Your task to perform on an android device: all mails in gmail Image 0: 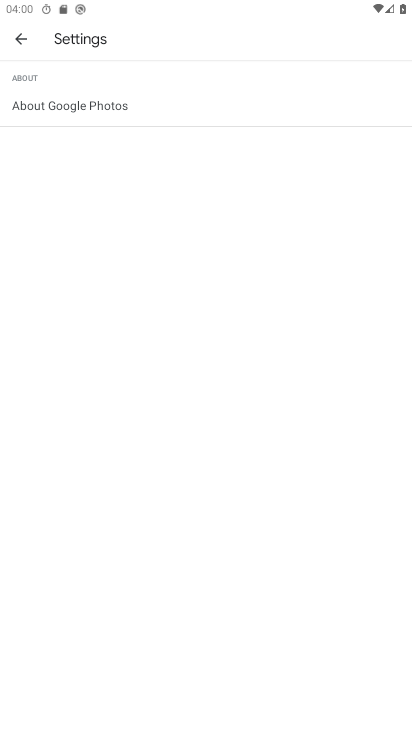
Step 0: press home button
Your task to perform on an android device: all mails in gmail Image 1: 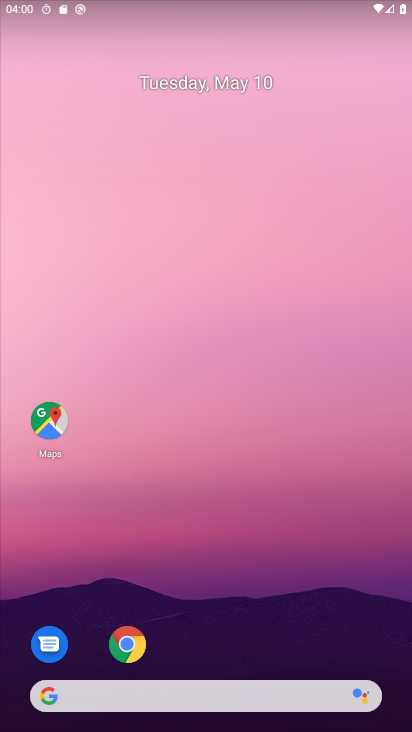
Step 1: drag from (193, 647) to (259, 47)
Your task to perform on an android device: all mails in gmail Image 2: 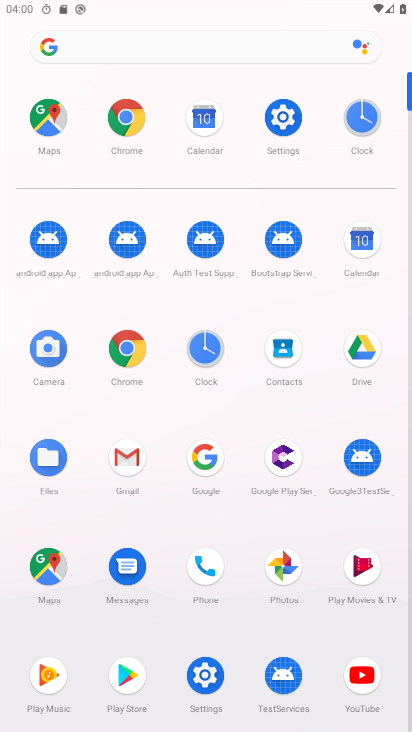
Step 2: click (121, 457)
Your task to perform on an android device: all mails in gmail Image 3: 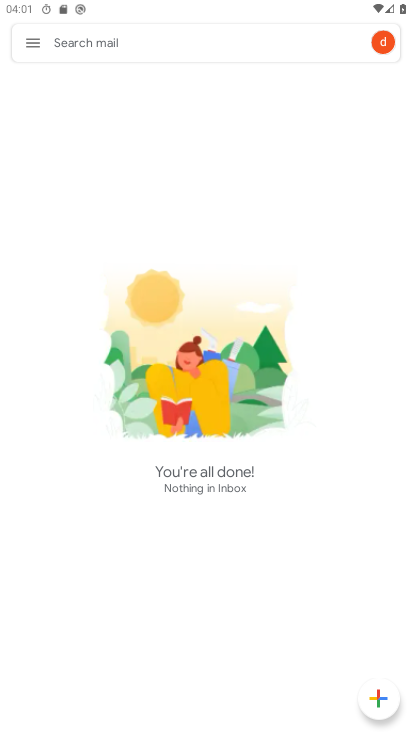
Step 3: click (32, 41)
Your task to perform on an android device: all mails in gmail Image 4: 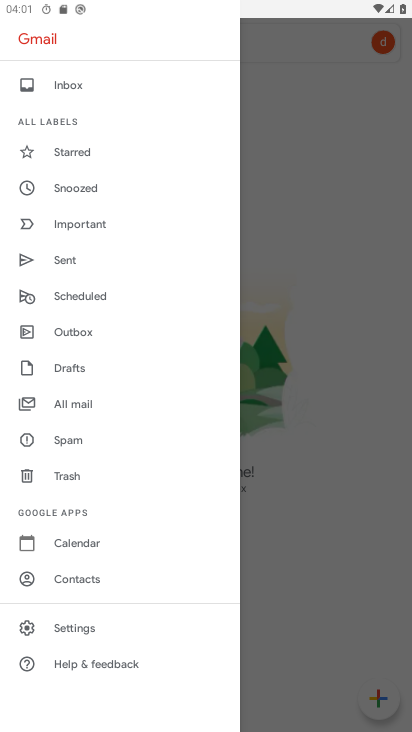
Step 4: click (74, 398)
Your task to perform on an android device: all mails in gmail Image 5: 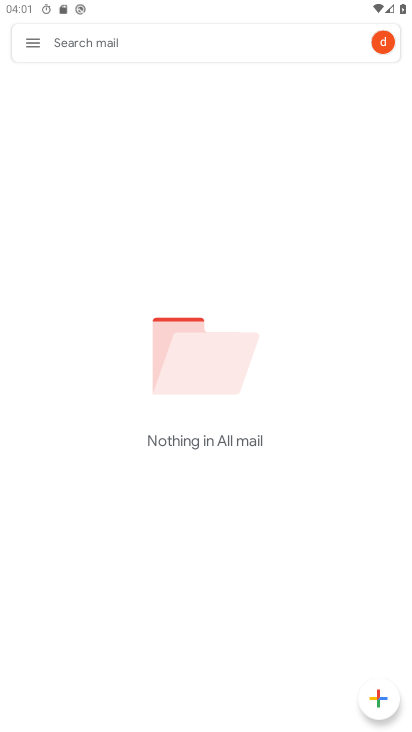
Step 5: task complete